Your task to perform on an android device: Open calendar and show me the third week of next month Image 0: 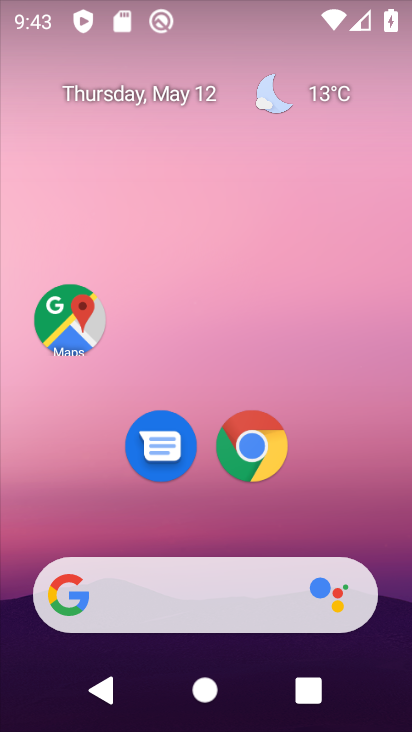
Step 0: drag from (179, 544) to (215, 24)
Your task to perform on an android device: Open calendar and show me the third week of next month Image 1: 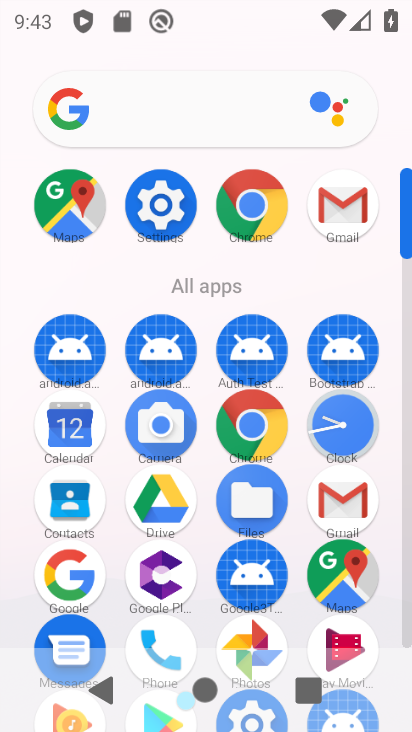
Step 1: click (73, 430)
Your task to perform on an android device: Open calendar and show me the third week of next month Image 2: 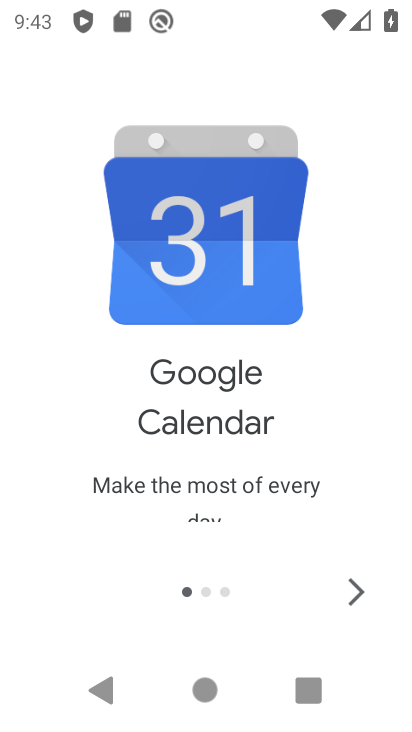
Step 2: click (358, 595)
Your task to perform on an android device: Open calendar and show me the third week of next month Image 3: 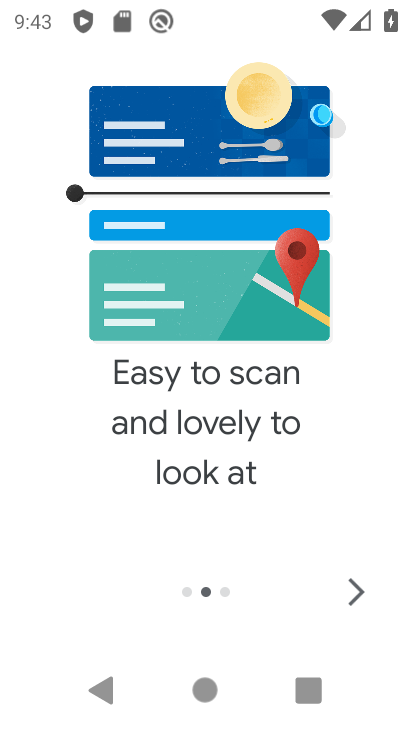
Step 3: click (358, 595)
Your task to perform on an android device: Open calendar and show me the third week of next month Image 4: 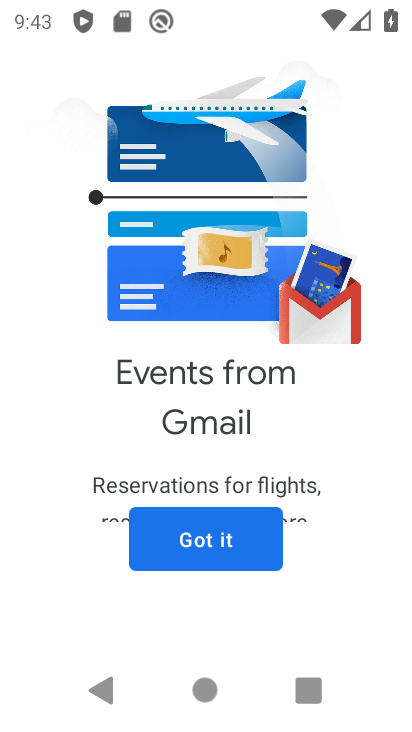
Step 4: click (358, 592)
Your task to perform on an android device: Open calendar and show me the third week of next month Image 5: 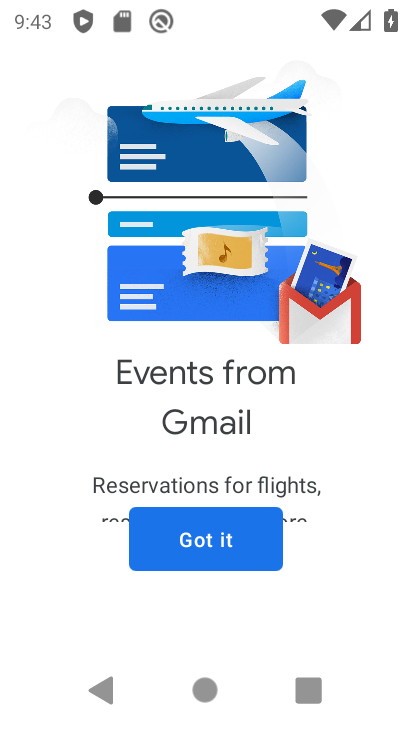
Step 5: click (257, 552)
Your task to perform on an android device: Open calendar and show me the third week of next month Image 6: 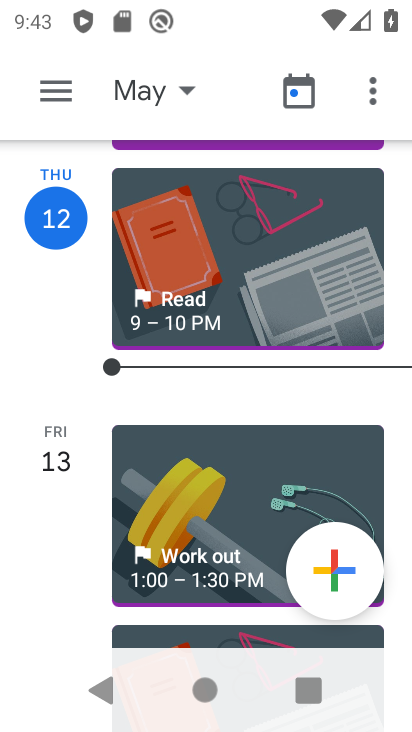
Step 6: click (193, 96)
Your task to perform on an android device: Open calendar and show me the third week of next month Image 7: 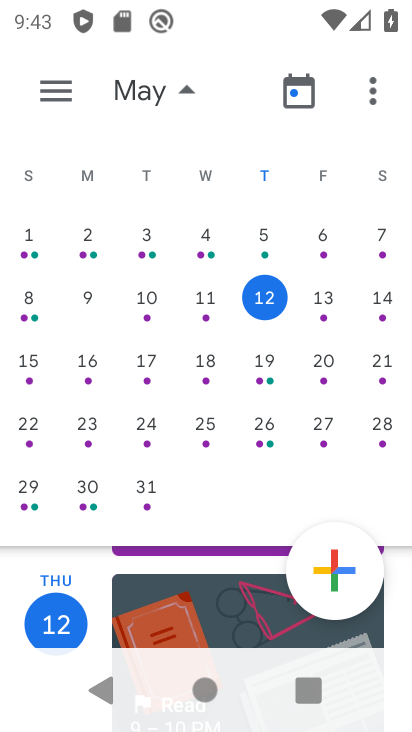
Step 7: drag from (343, 352) to (4, 306)
Your task to perform on an android device: Open calendar and show me the third week of next month Image 8: 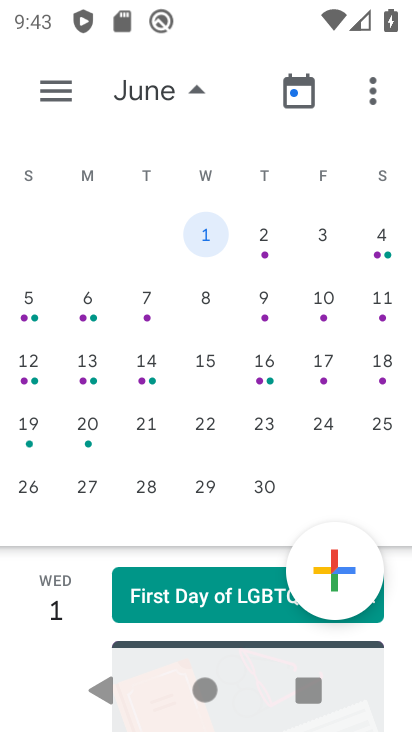
Step 8: click (260, 361)
Your task to perform on an android device: Open calendar and show me the third week of next month Image 9: 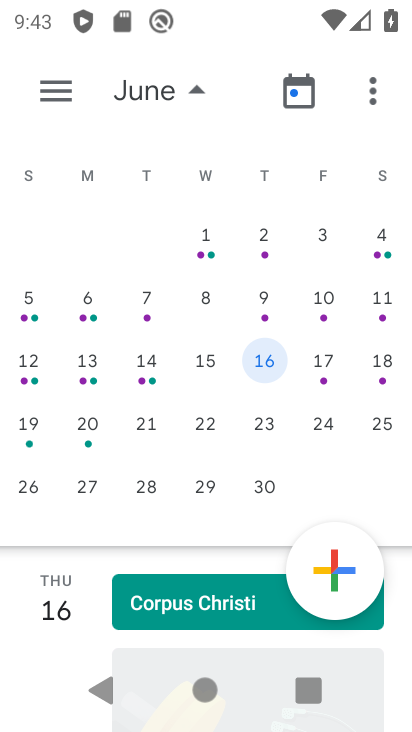
Step 9: click (57, 82)
Your task to perform on an android device: Open calendar and show me the third week of next month Image 10: 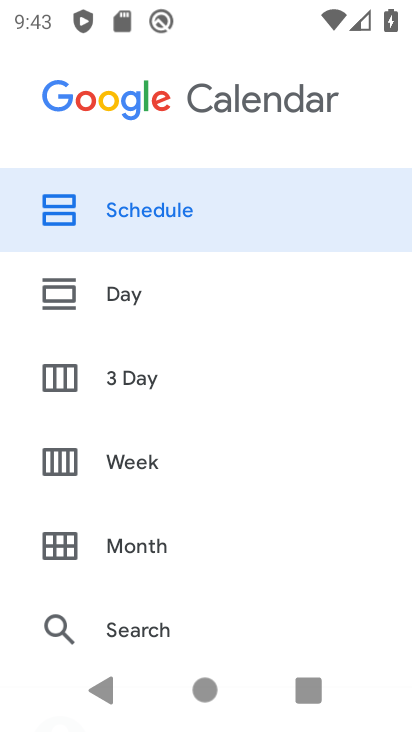
Step 10: click (108, 447)
Your task to perform on an android device: Open calendar and show me the third week of next month Image 11: 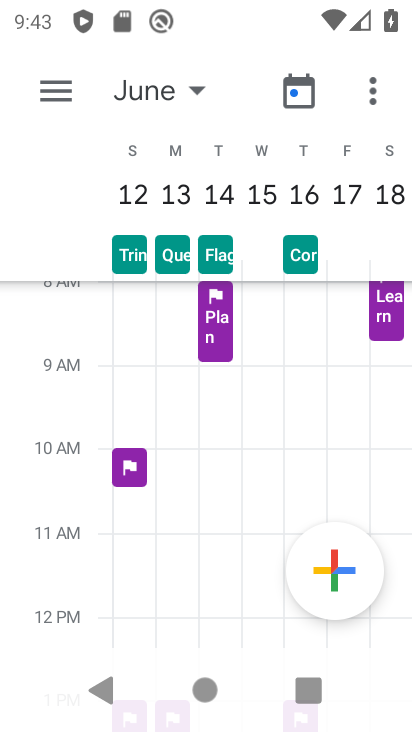
Step 11: task complete